Your task to perform on an android device: find photos in the google photos app Image 0: 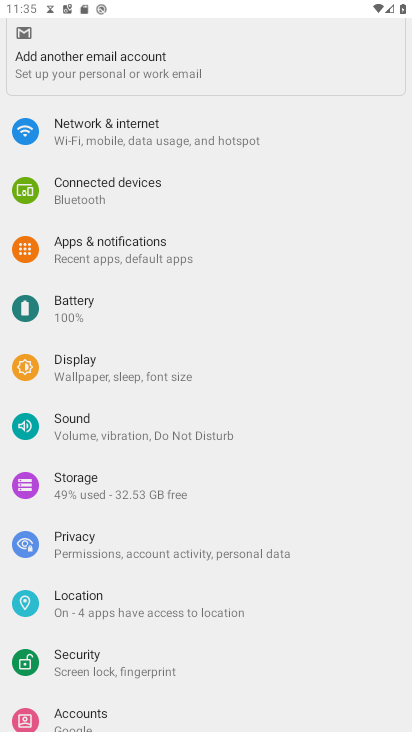
Step 0: press home button
Your task to perform on an android device: find photos in the google photos app Image 1: 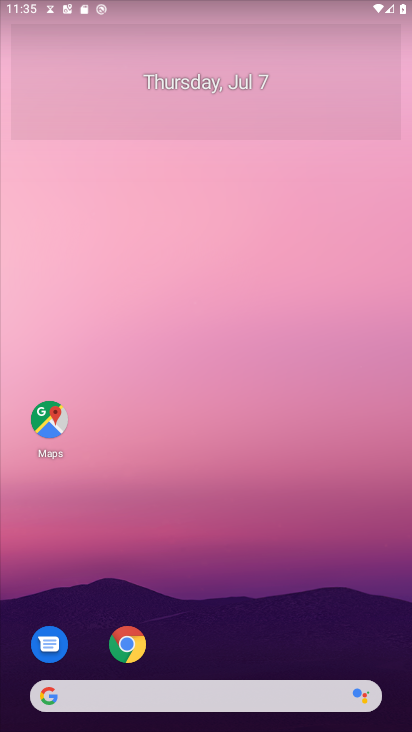
Step 1: drag from (272, 597) to (253, 3)
Your task to perform on an android device: find photos in the google photos app Image 2: 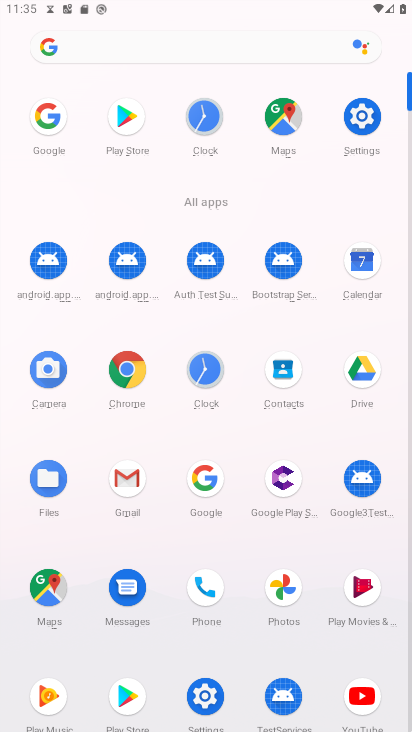
Step 2: click (278, 587)
Your task to perform on an android device: find photos in the google photos app Image 3: 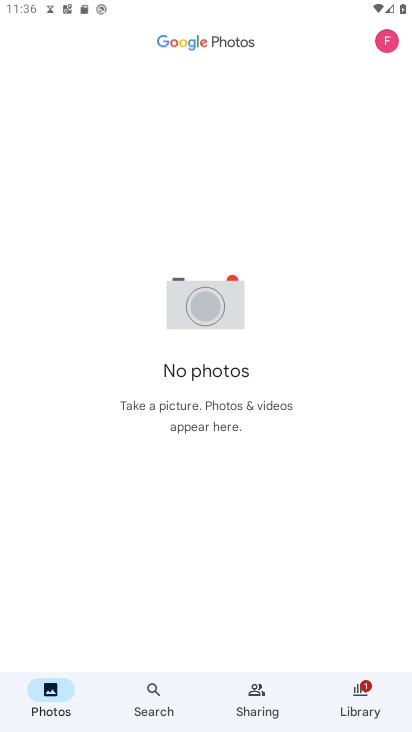
Step 3: task complete